Your task to perform on an android device: What's the weather? Image 0: 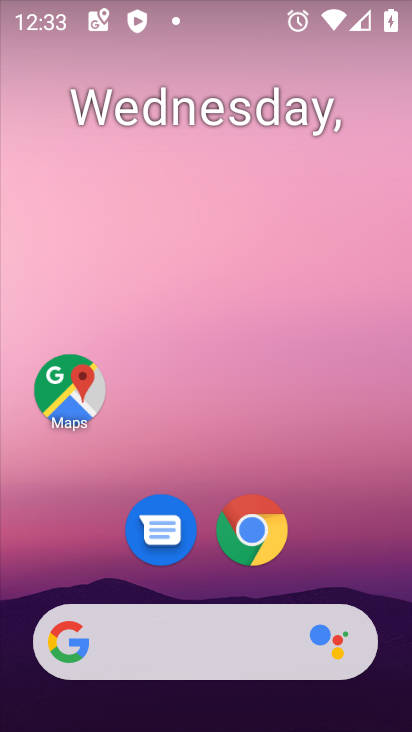
Step 0: click (252, 530)
Your task to perform on an android device: What's the weather? Image 1: 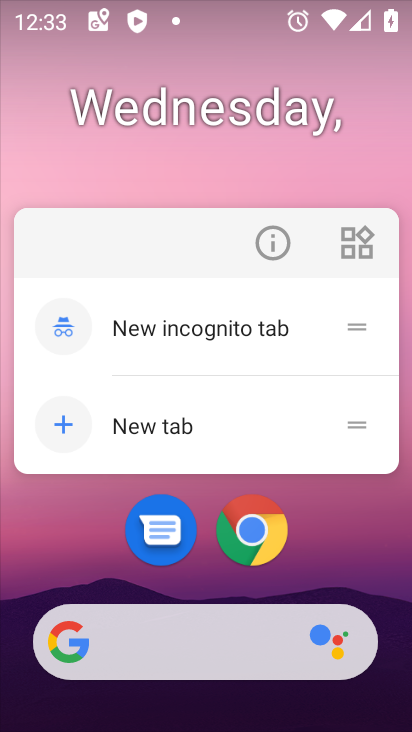
Step 1: click (271, 247)
Your task to perform on an android device: What's the weather? Image 2: 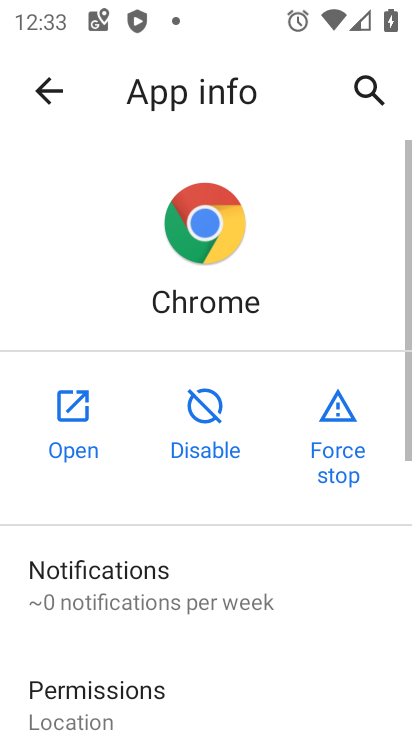
Step 2: click (71, 419)
Your task to perform on an android device: What's the weather? Image 3: 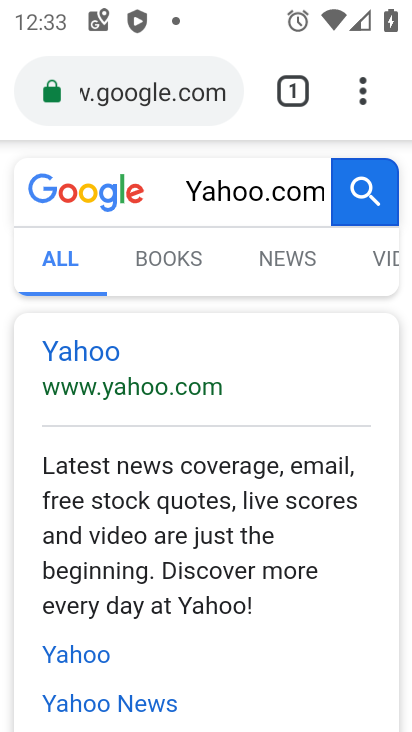
Step 3: click (187, 78)
Your task to perform on an android device: What's the weather? Image 4: 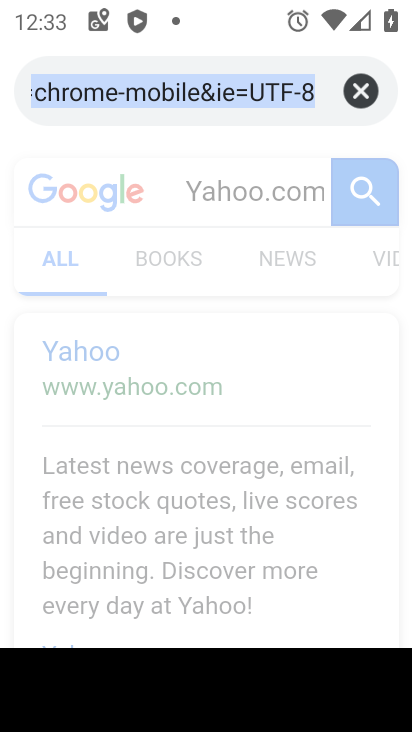
Step 4: type "weather"
Your task to perform on an android device: What's the weather? Image 5: 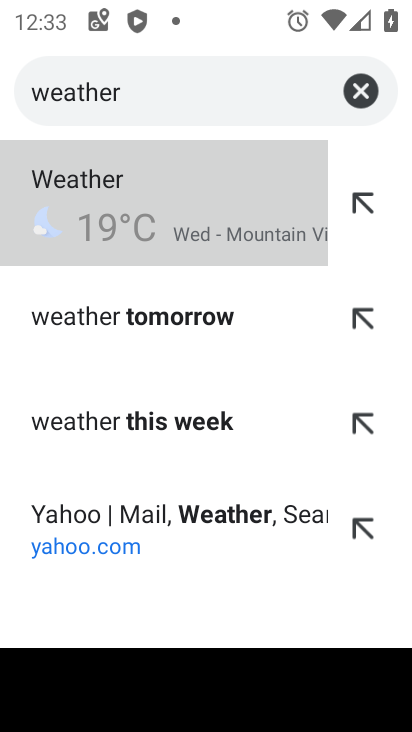
Step 5: click (172, 209)
Your task to perform on an android device: What's the weather? Image 6: 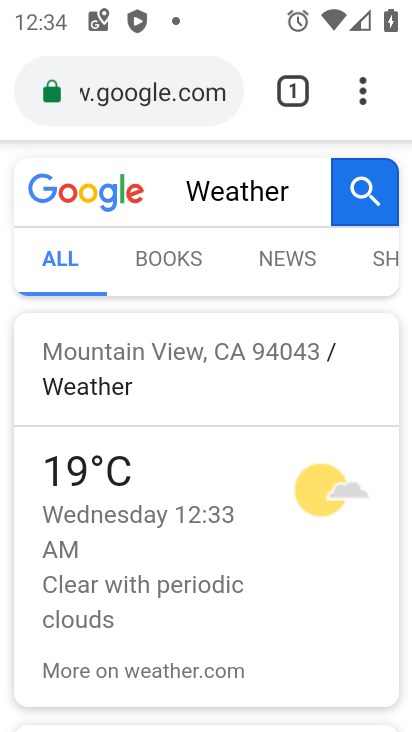
Step 6: task complete